Your task to perform on an android device: When is my next appointment? Image 0: 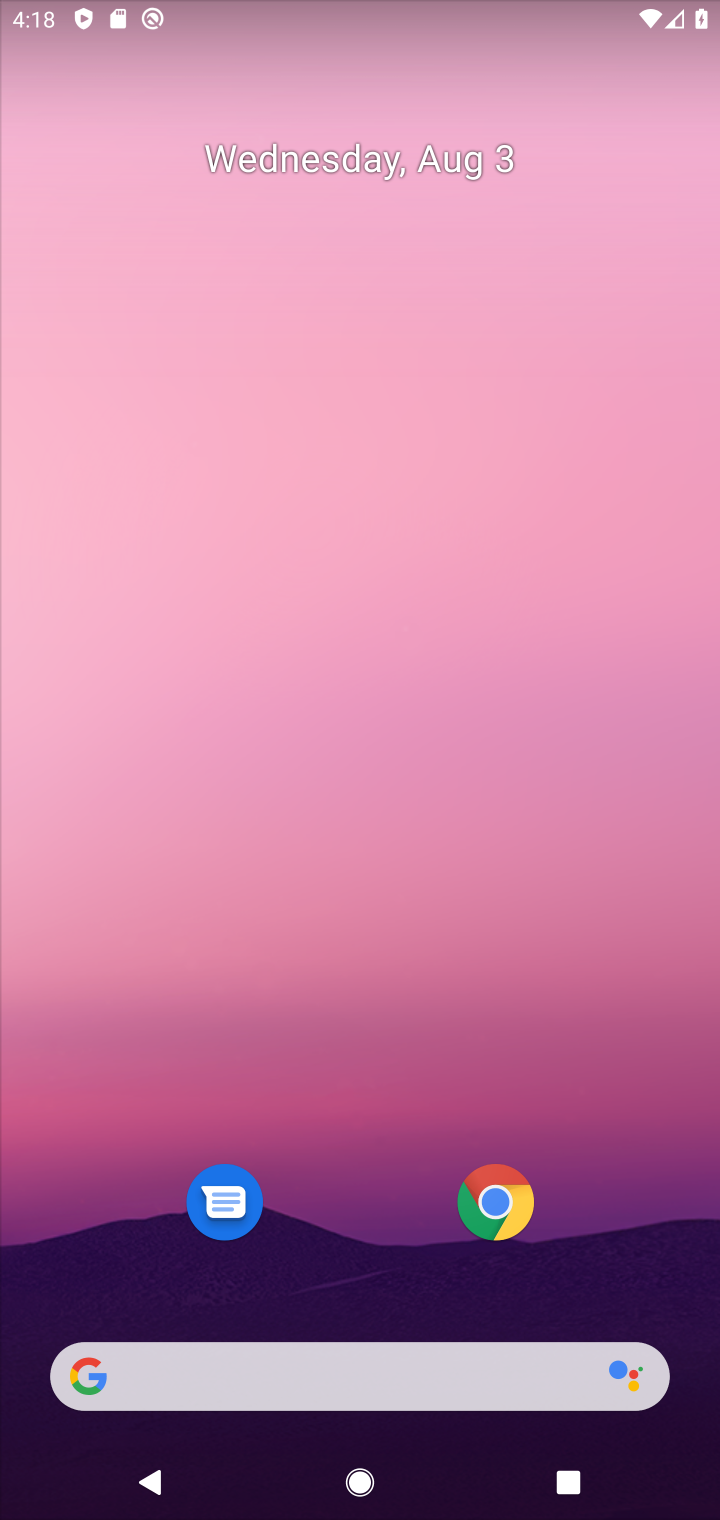
Step 0: drag from (373, 958) to (497, 65)
Your task to perform on an android device: When is my next appointment? Image 1: 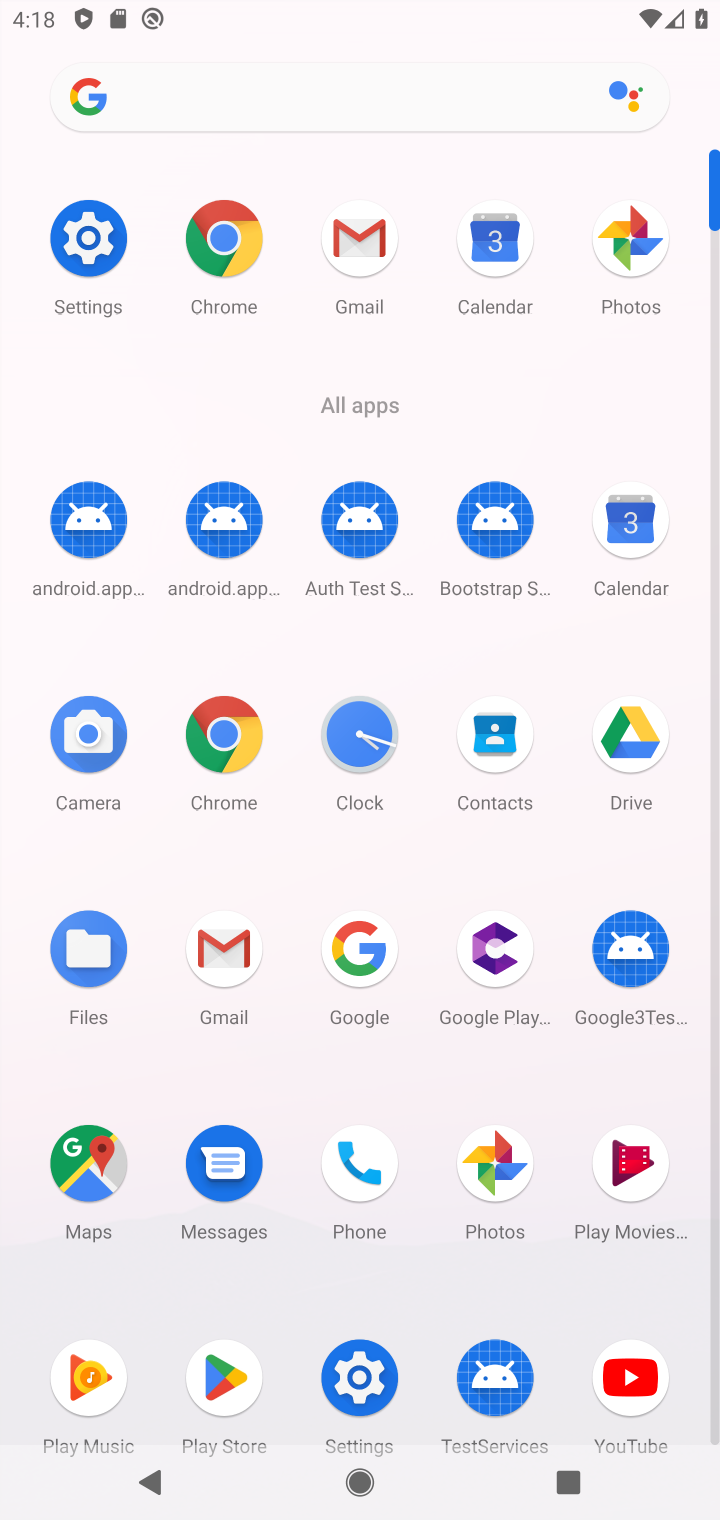
Step 1: click (508, 230)
Your task to perform on an android device: When is my next appointment? Image 2: 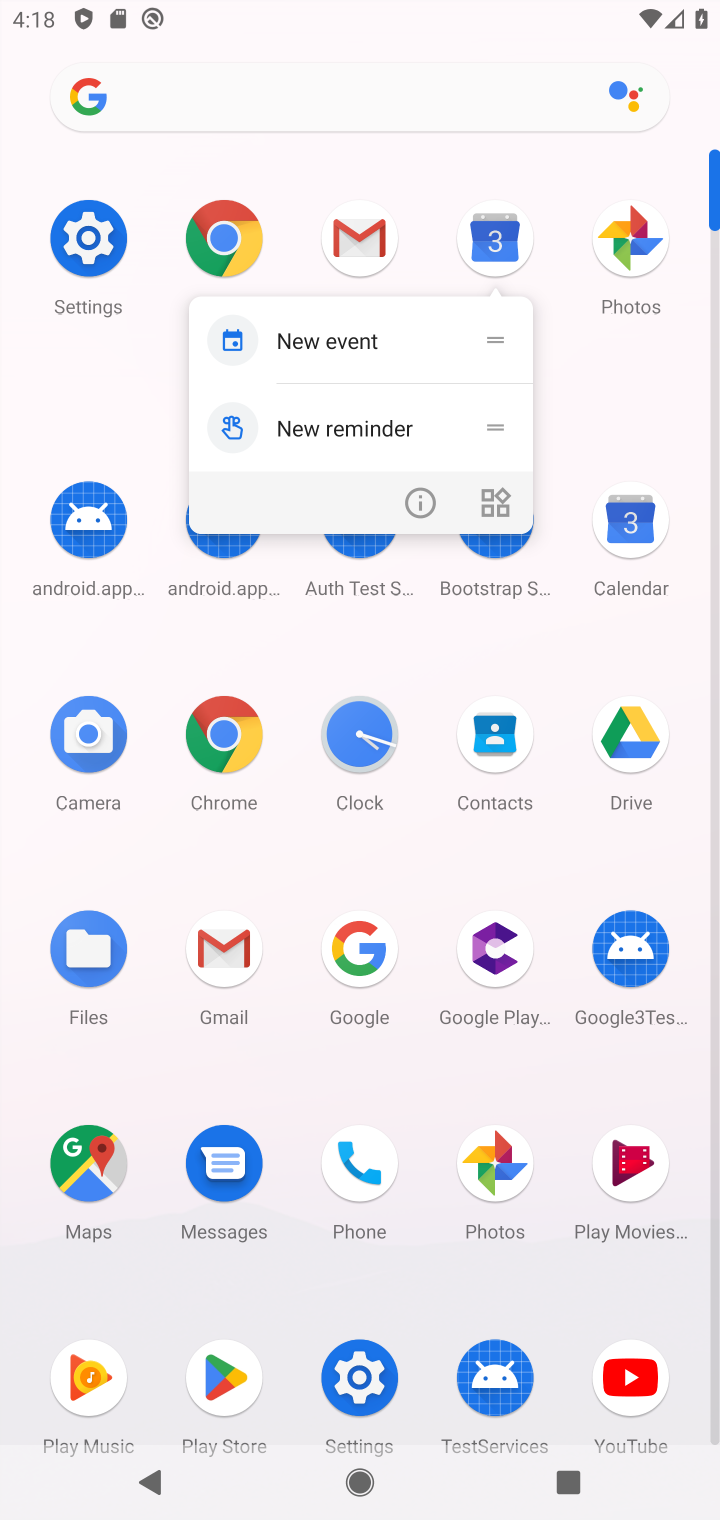
Step 2: click (482, 255)
Your task to perform on an android device: When is my next appointment? Image 3: 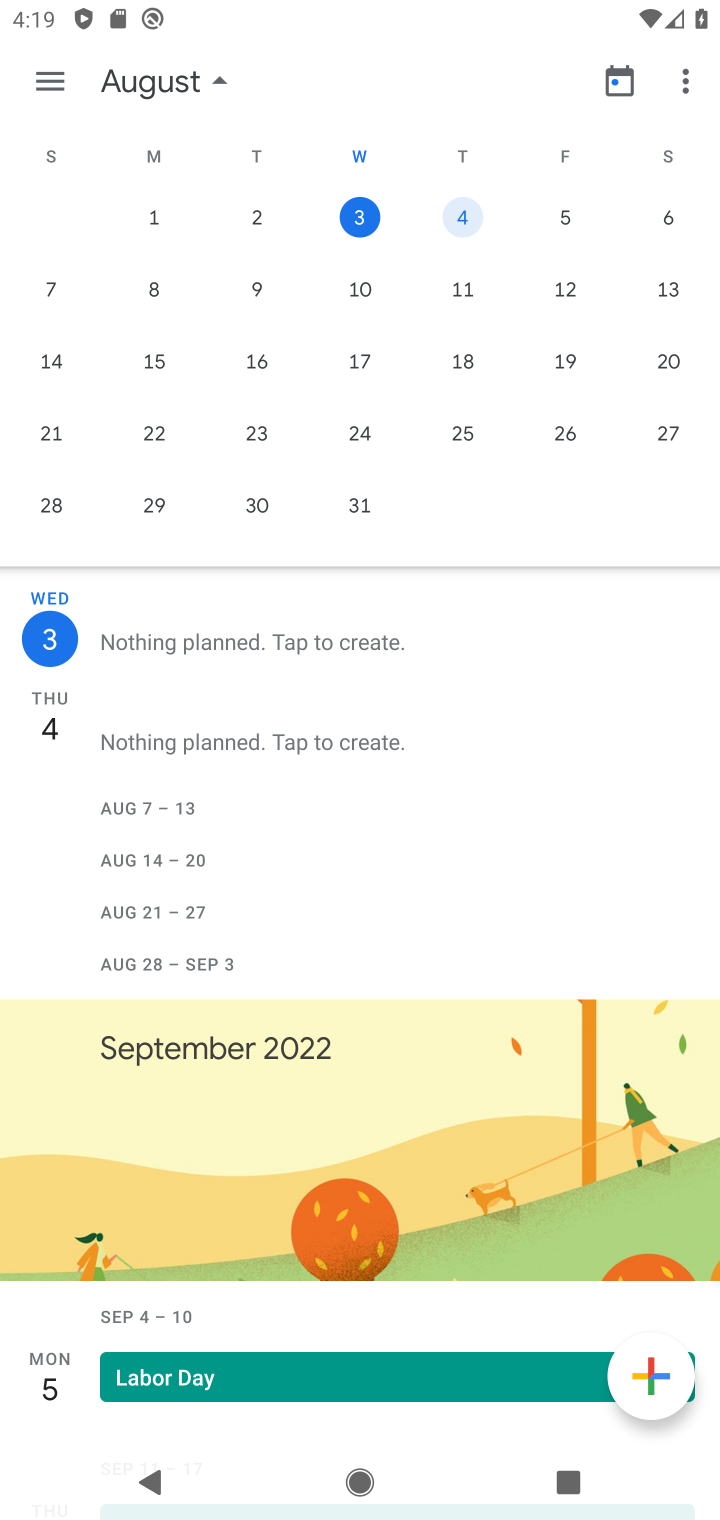
Step 3: task complete